Your task to perform on an android device: Open battery settings Image 0: 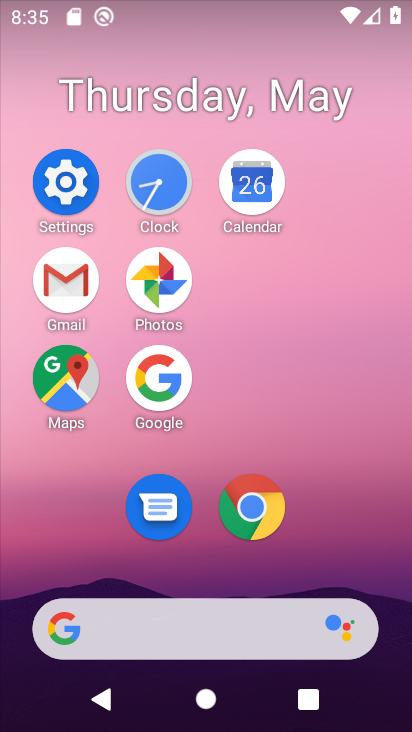
Step 0: click (81, 192)
Your task to perform on an android device: Open battery settings Image 1: 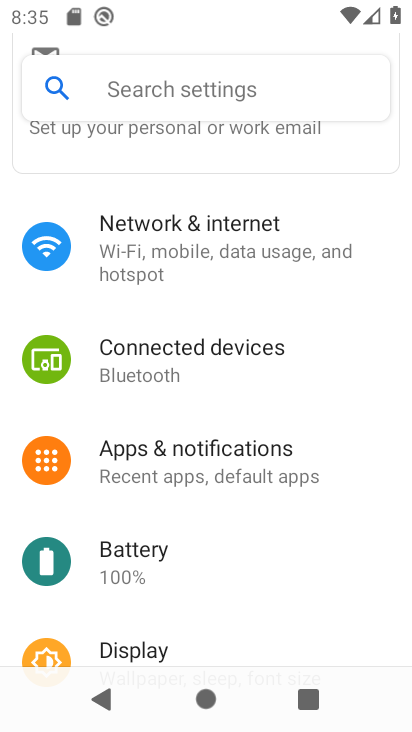
Step 1: click (183, 566)
Your task to perform on an android device: Open battery settings Image 2: 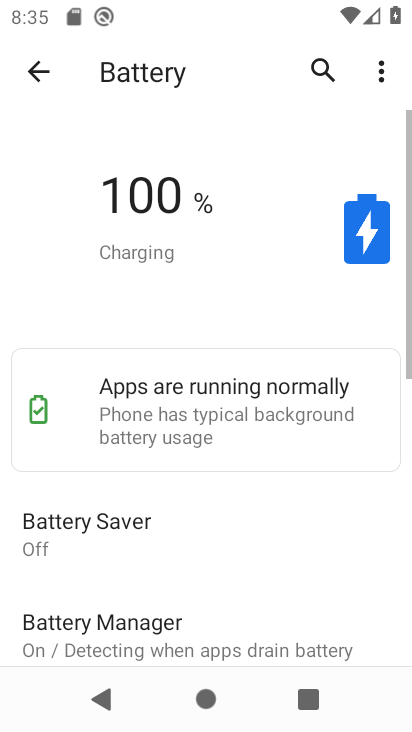
Step 2: task complete